Your task to perform on an android device: add a contact in the contacts app Image 0: 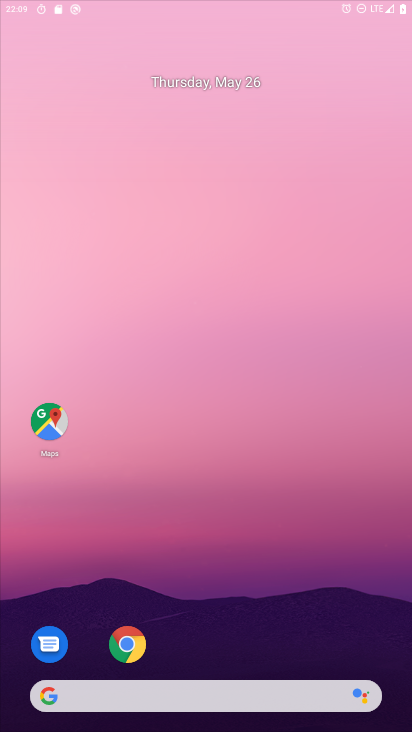
Step 0: click (275, 85)
Your task to perform on an android device: add a contact in the contacts app Image 1: 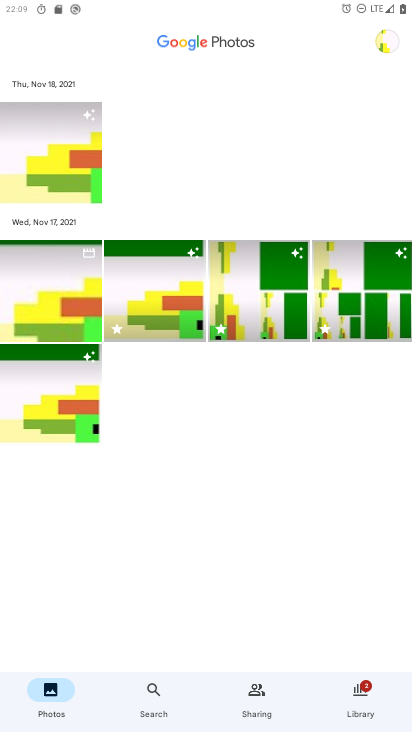
Step 1: click (308, 531)
Your task to perform on an android device: add a contact in the contacts app Image 2: 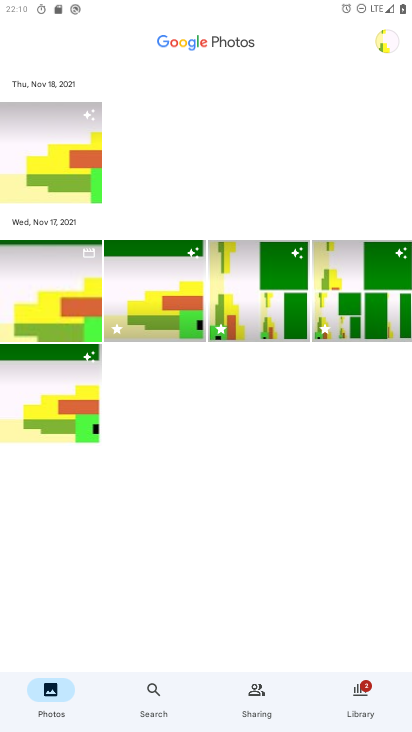
Step 2: press home button
Your task to perform on an android device: add a contact in the contacts app Image 3: 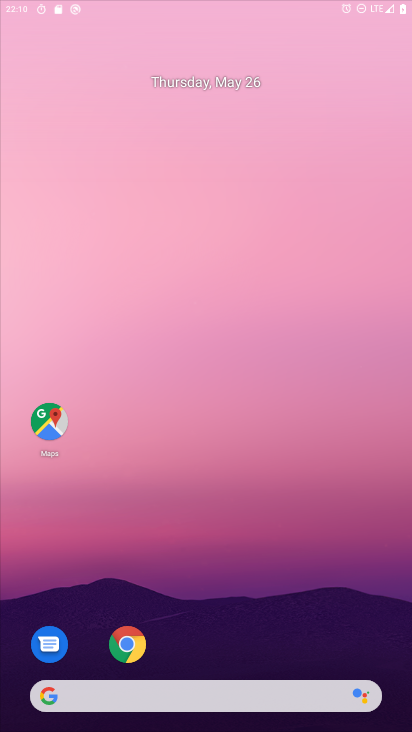
Step 3: drag from (265, 631) to (254, 0)
Your task to perform on an android device: add a contact in the contacts app Image 4: 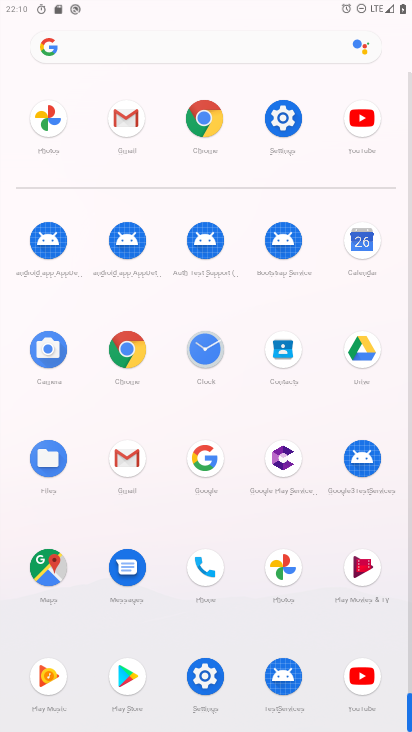
Step 4: click (279, 345)
Your task to perform on an android device: add a contact in the contacts app Image 5: 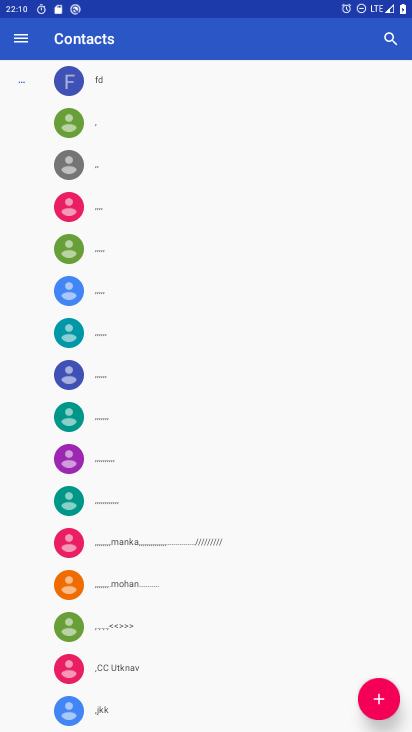
Step 5: drag from (246, 627) to (317, 298)
Your task to perform on an android device: add a contact in the contacts app Image 6: 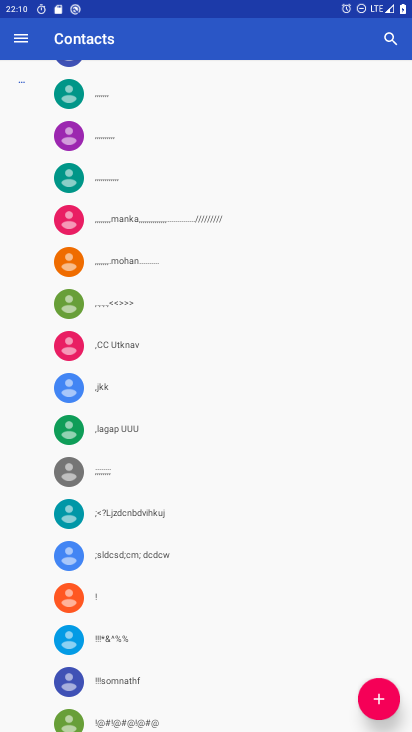
Step 6: click (392, 701)
Your task to perform on an android device: add a contact in the contacts app Image 7: 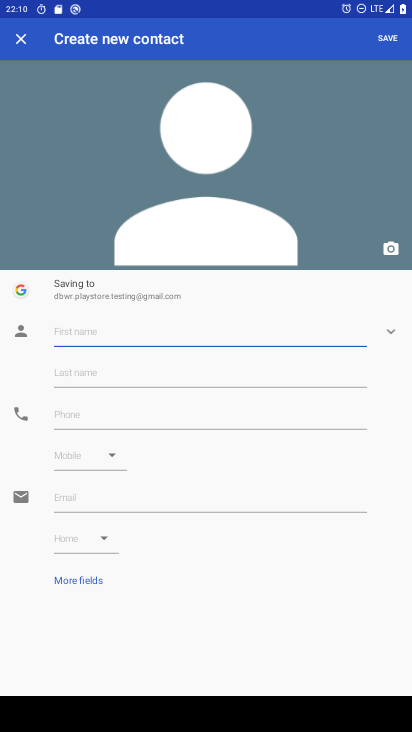
Step 7: type "majkz"
Your task to perform on an android device: add a contact in the contacts app Image 8: 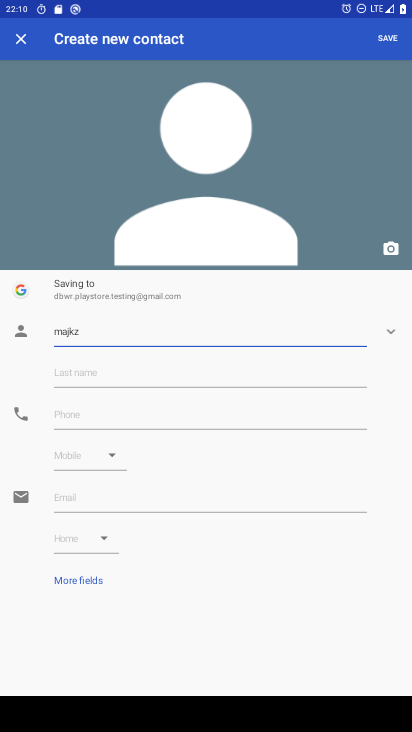
Step 8: click (382, 42)
Your task to perform on an android device: add a contact in the contacts app Image 9: 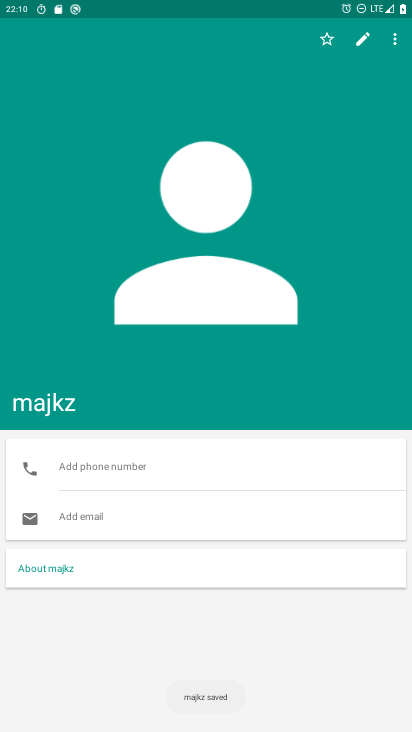
Step 9: task complete